Your task to perform on an android device: Open Yahoo.com Image 0: 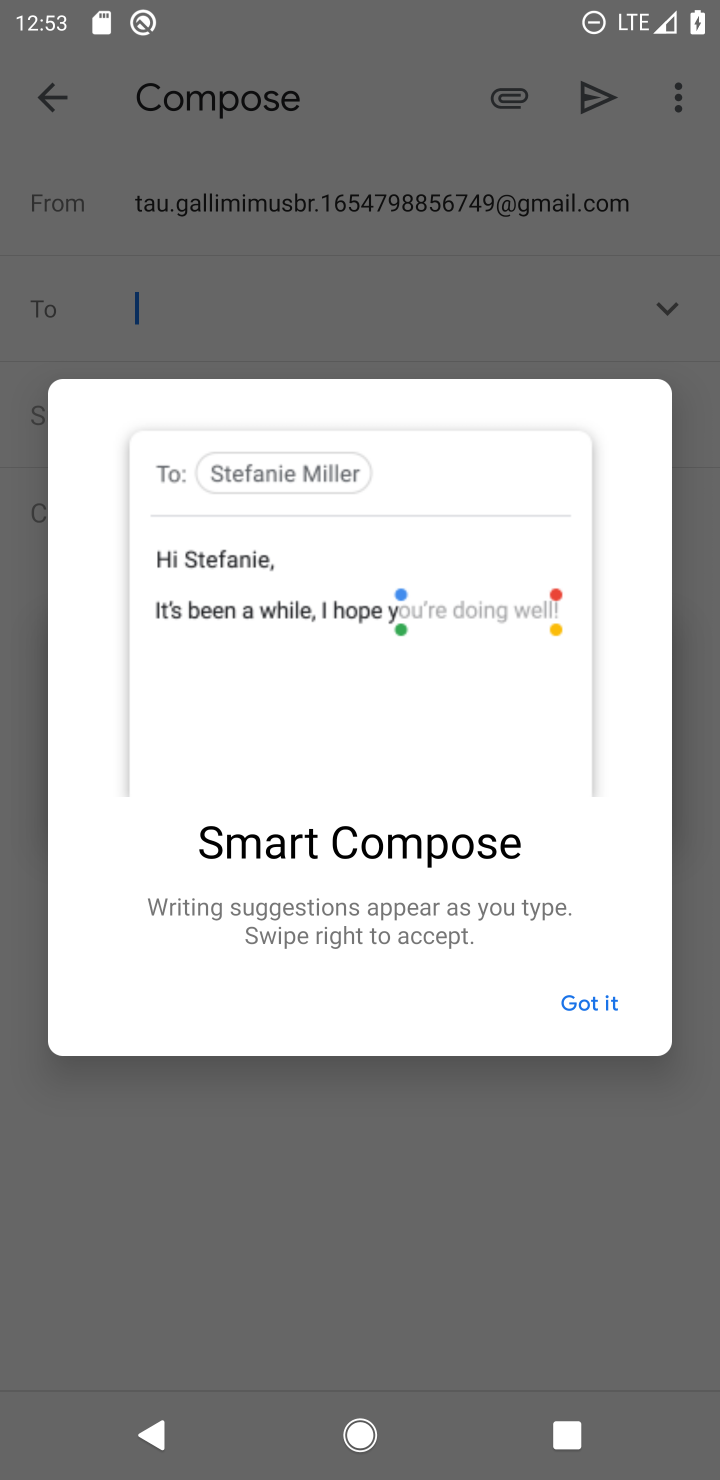
Step 0: press home button
Your task to perform on an android device: Open Yahoo.com Image 1: 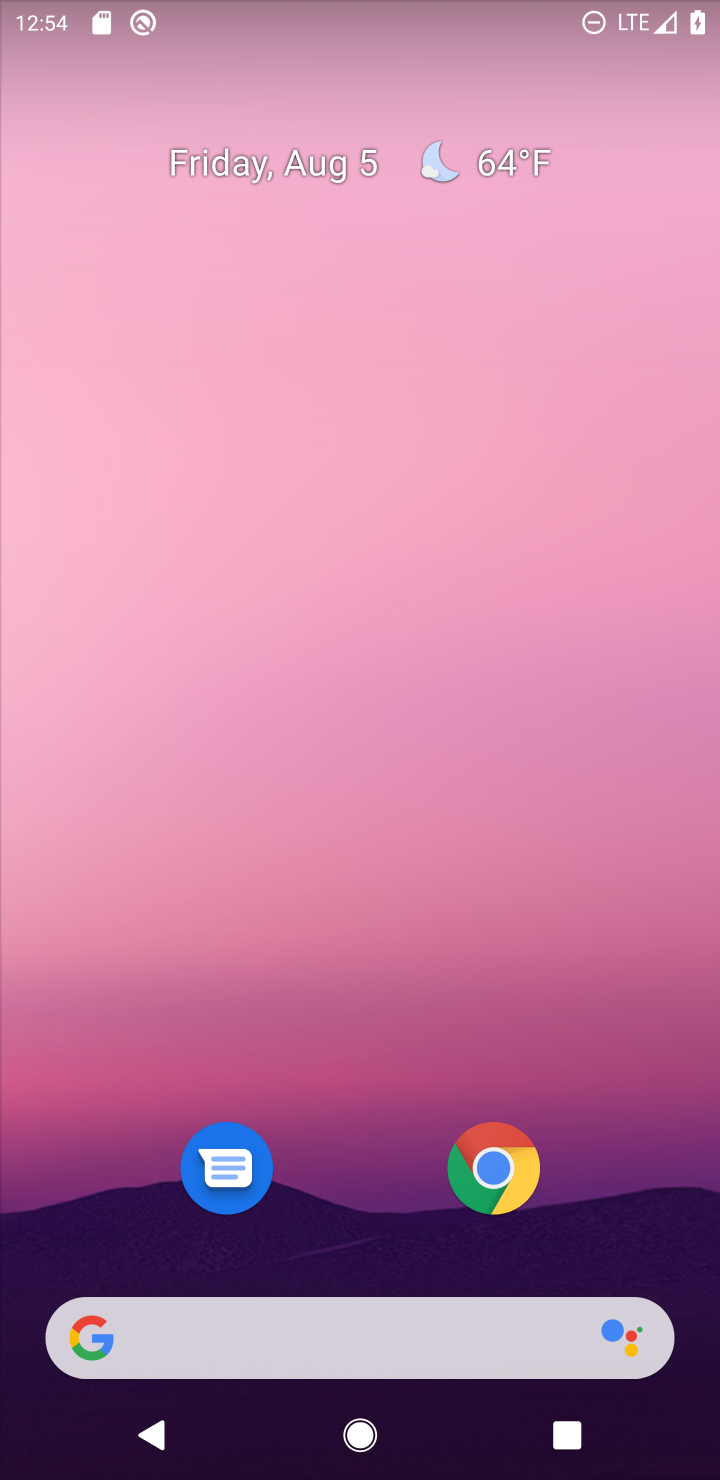
Step 1: drag from (638, 1191) to (210, 6)
Your task to perform on an android device: Open Yahoo.com Image 2: 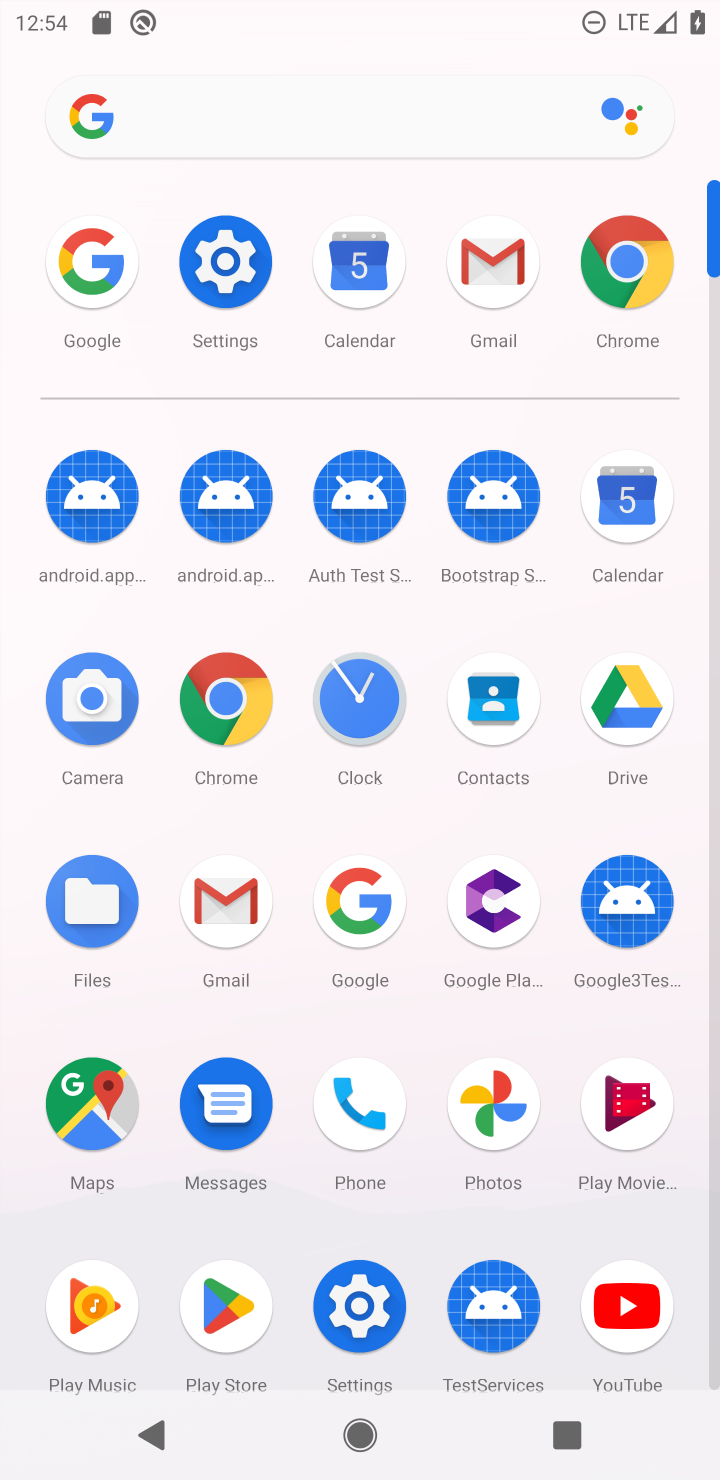
Step 2: click (356, 949)
Your task to perform on an android device: Open Yahoo.com Image 3: 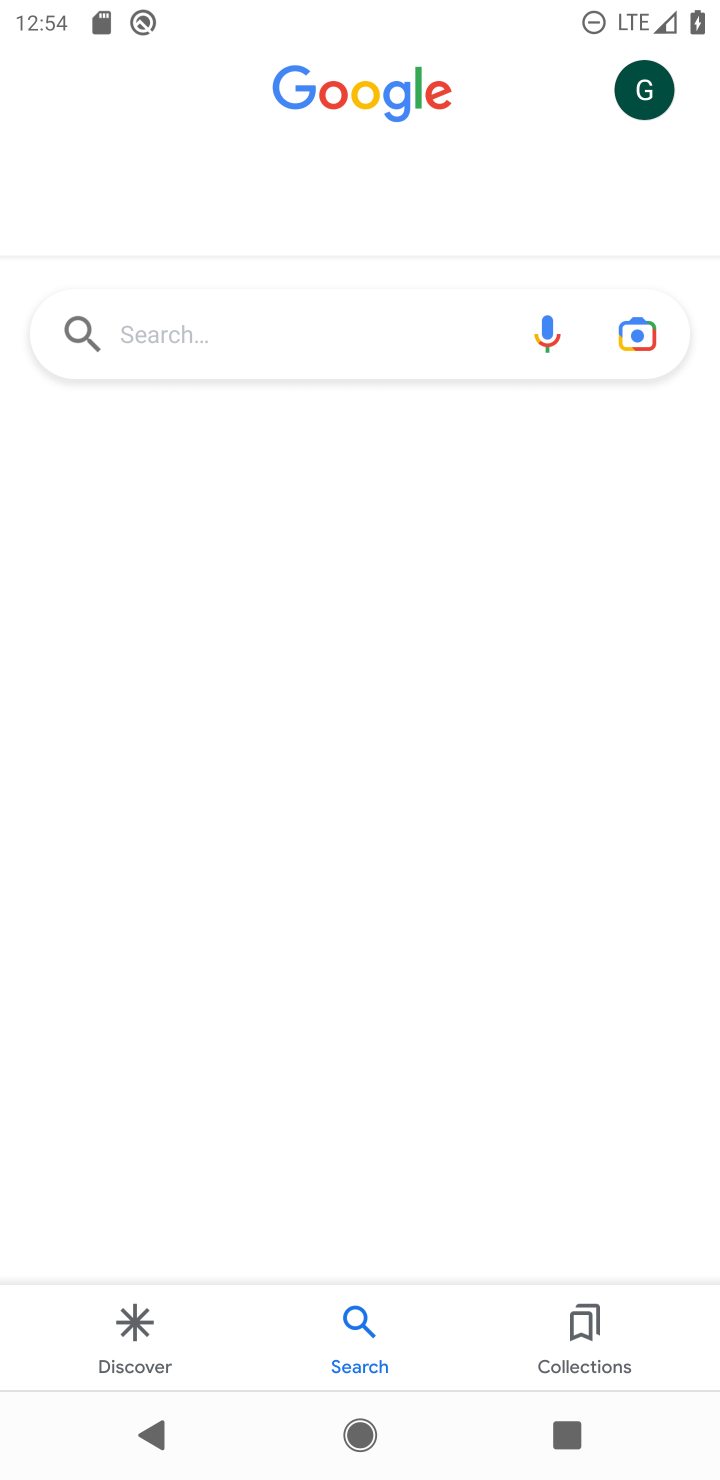
Step 3: click (256, 349)
Your task to perform on an android device: Open Yahoo.com Image 4: 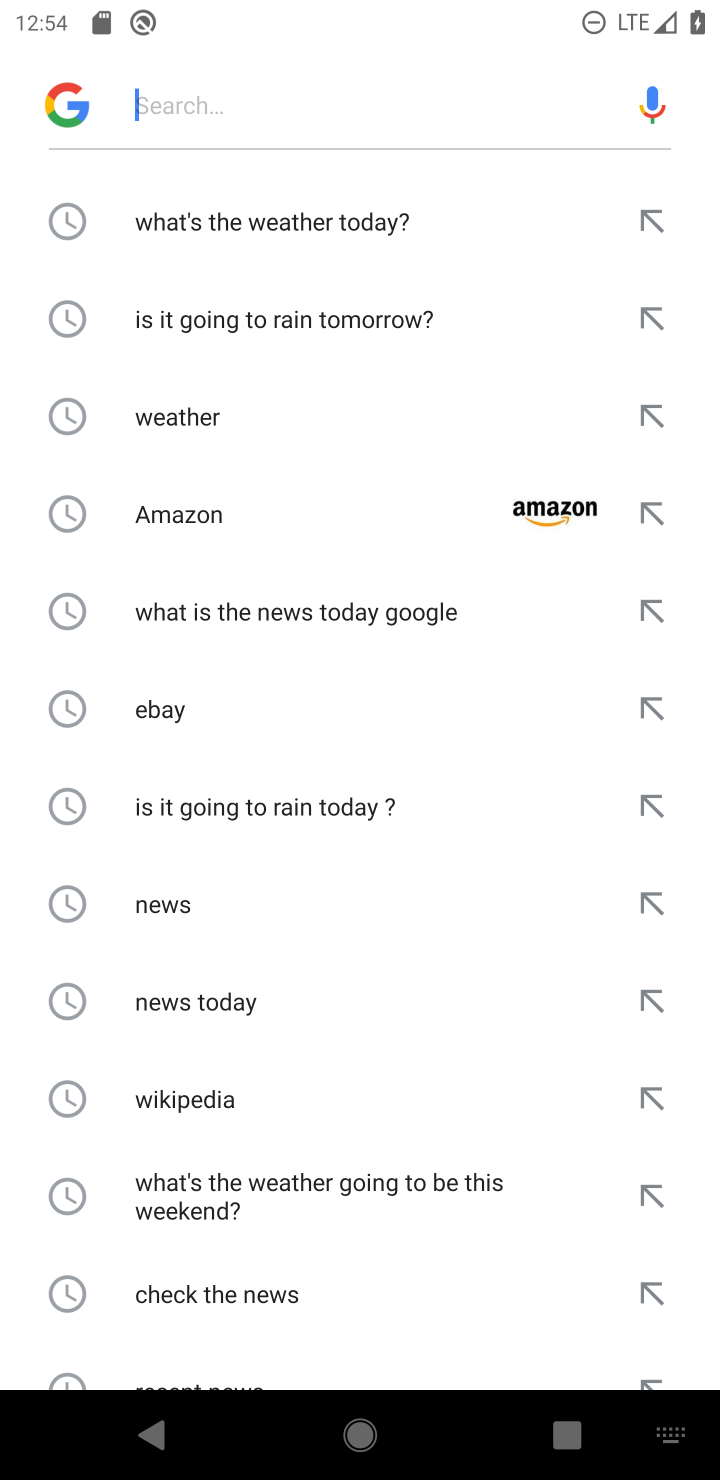
Step 4: type "Yahoo.com"
Your task to perform on an android device: Open Yahoo.com Image 5: 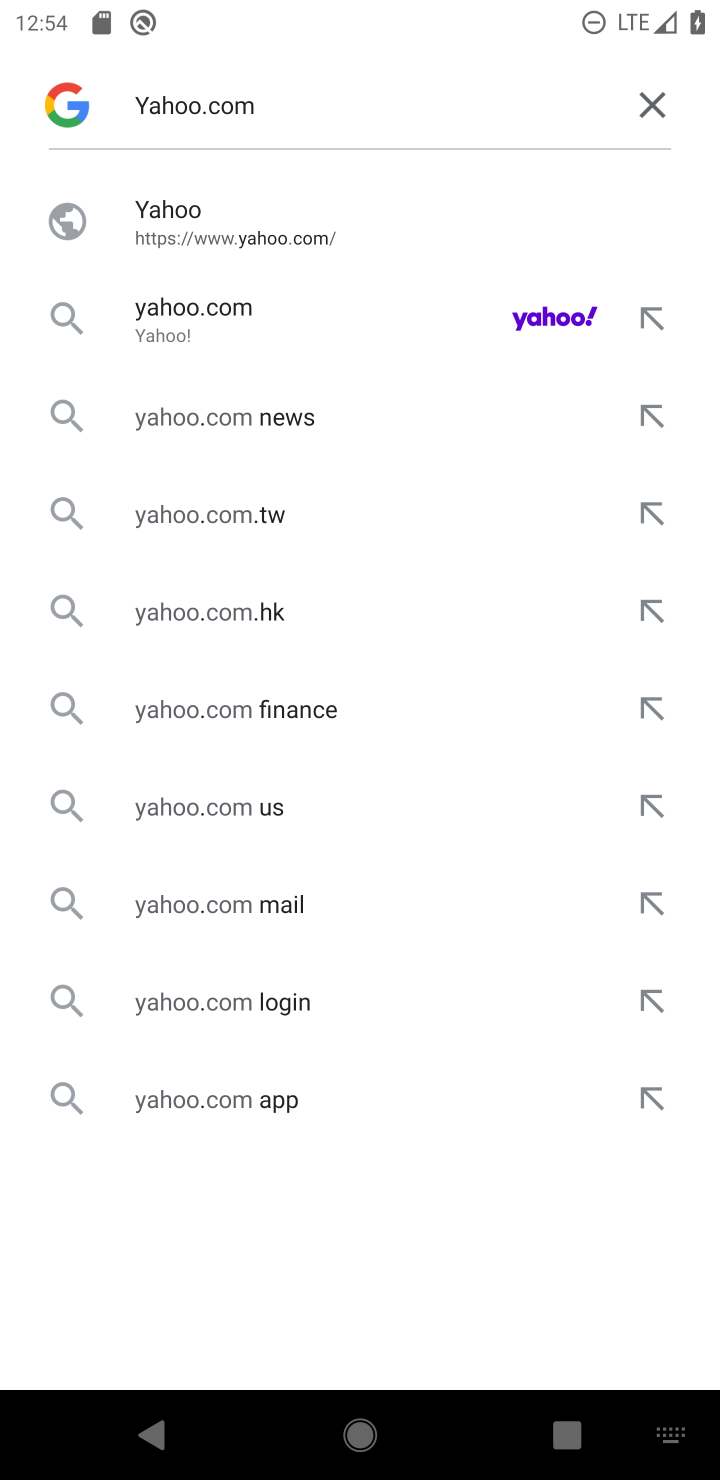
Step 5: click (246, 327)
Your task to perform on an android device: Open Yahoo.com Image 6: 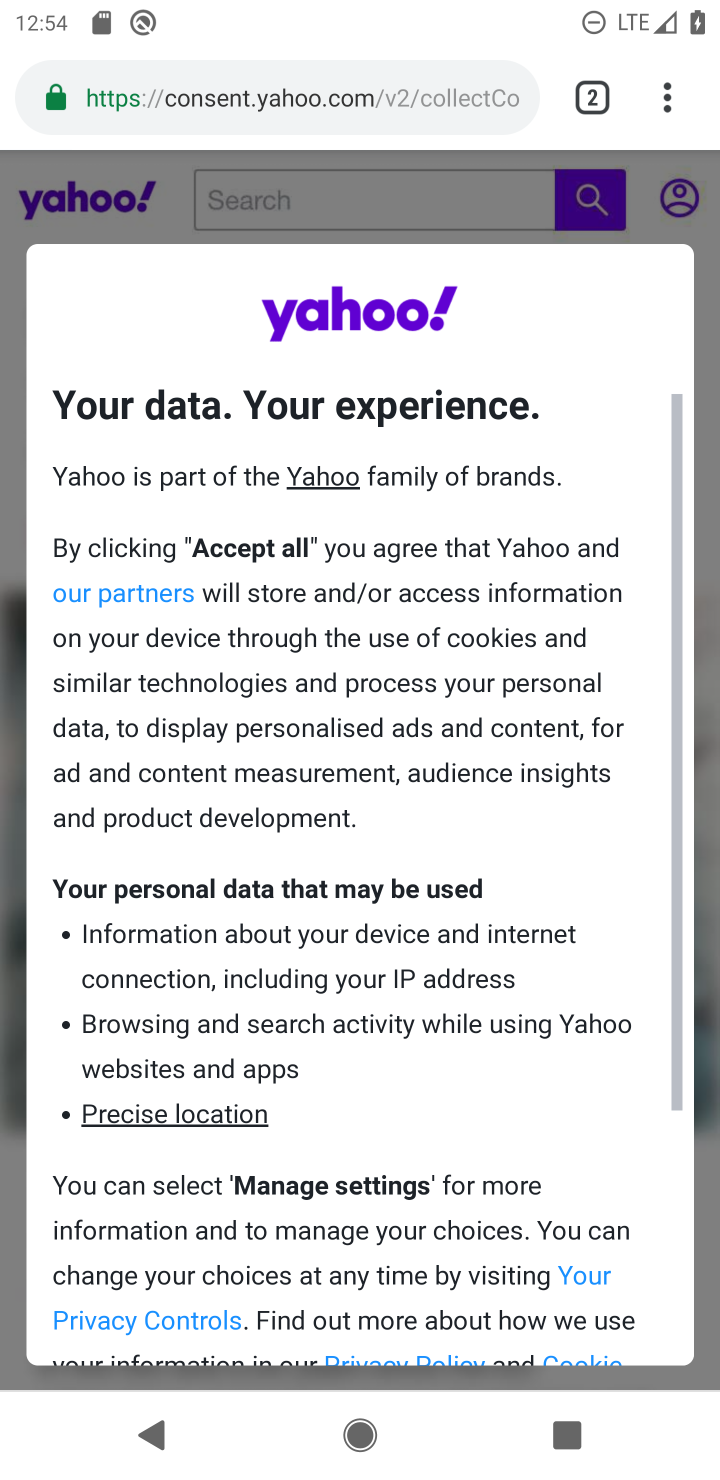
Step 6: task complete